Your task to perform on an android device: Open Google Maps and go to "Timeline" Image 0: 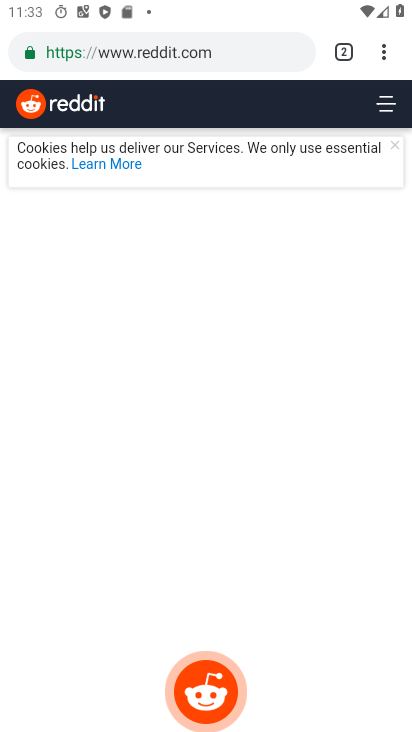
Step 0: press home button
Your task to perform on an android device: Open Google Maps and go to "Timeline" Image 1: 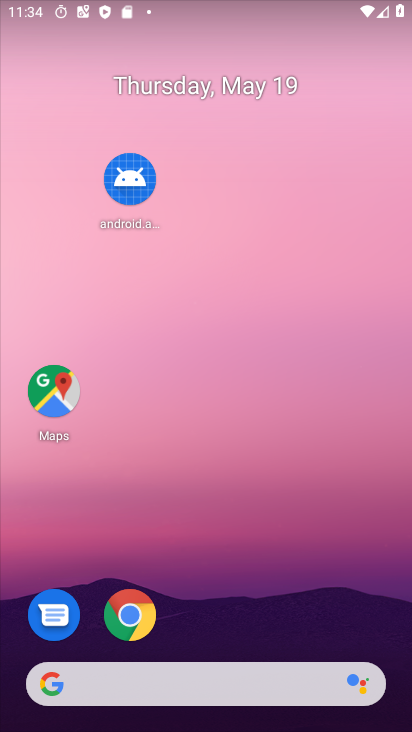
Step 1: click (54, 383)
Your task to perform on an android device: Open Google Maps and go to "Timeline" Image 2: 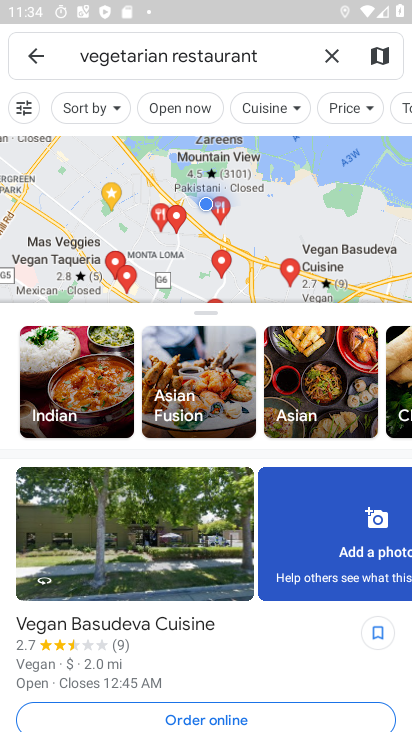
Step 2: click (28, 47)
Your task to perform on an android device: Open Google Maps and go to "Timeline" Image 3: 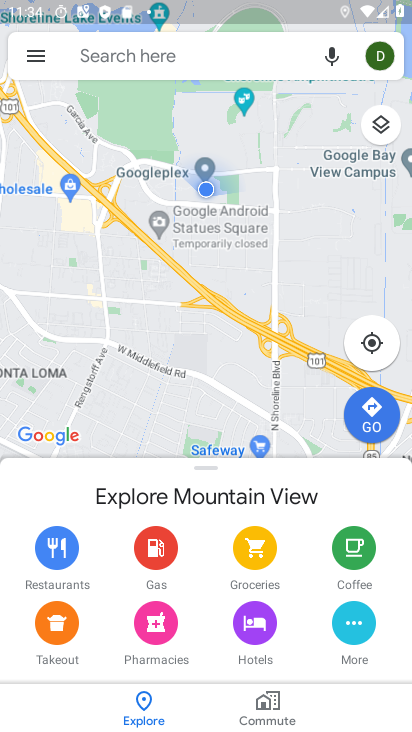
Step 3: click (28, 47)
Your task to perform on an android device: Open Google Maps and go to "Timeline" Image 4: 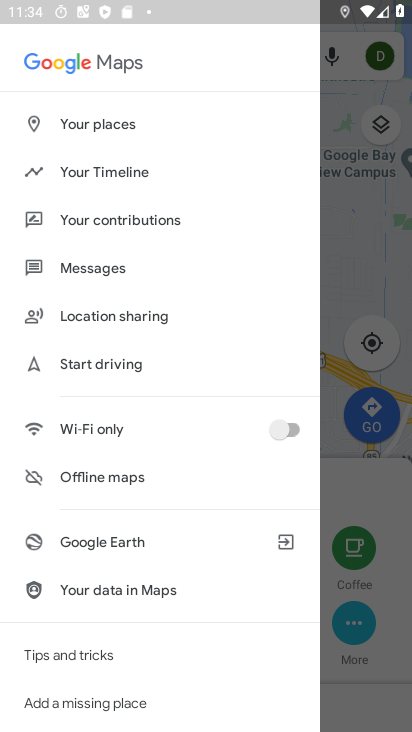
Step 4: click (112, 173)
Your task to perform on an android device: Open Google Maps and go to "Timeline" Image 5: 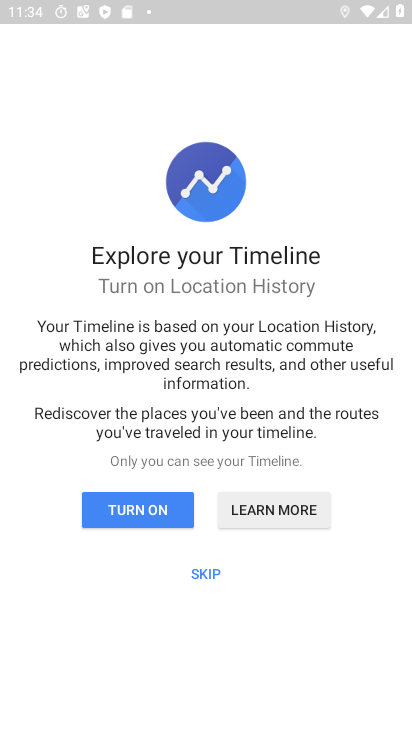
Step 5: click (196, 570)
Your task to perform on an android device: Open Google Maps and go to "Timeline" Image 6: 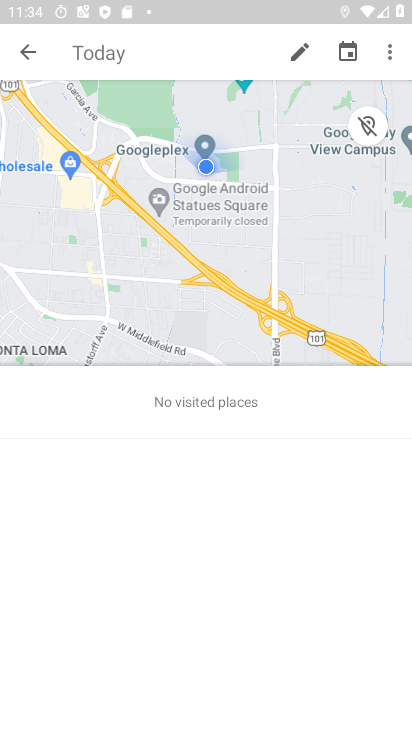
Step 6: task complete